Your task to perform on an android device: When is my next meeting? Image 0: 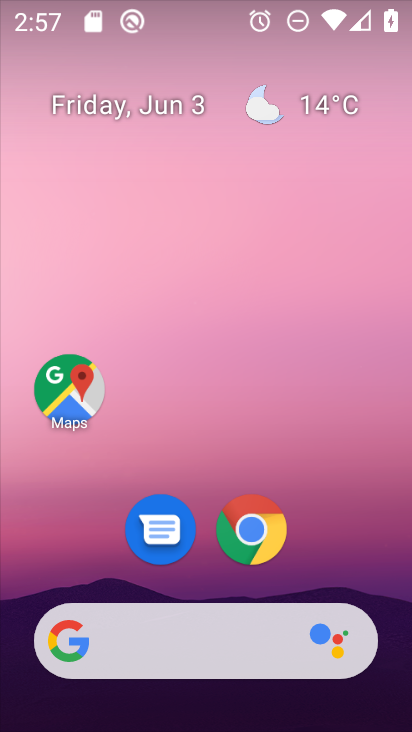
Step 0: drag from (374, 570) to (353, 206)
Your task to perform on an android device: When is my next meeting? Image 1: 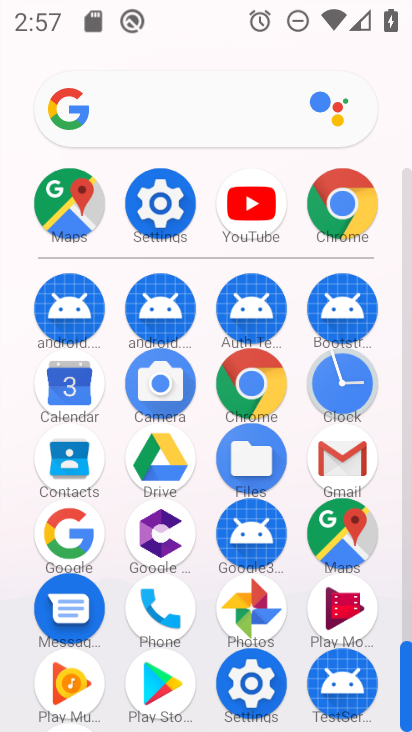
Step 1: click (77, 395)
Your task to perform on an android device: When is my next meeting? Image 2: 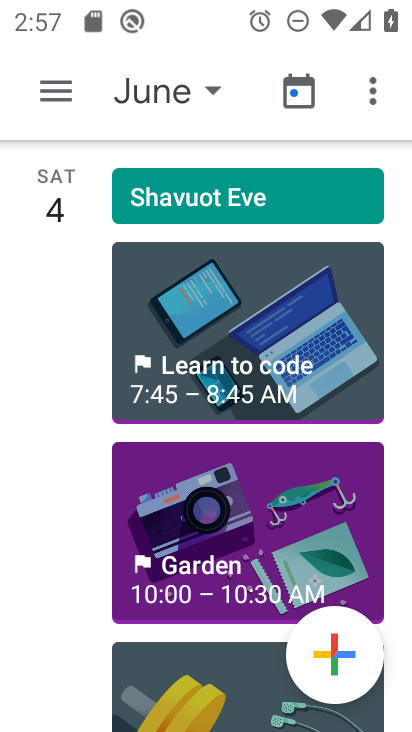
Step 2: click (244, 556)
Your task to perform on an android device: When is my next meeting? Image 3: 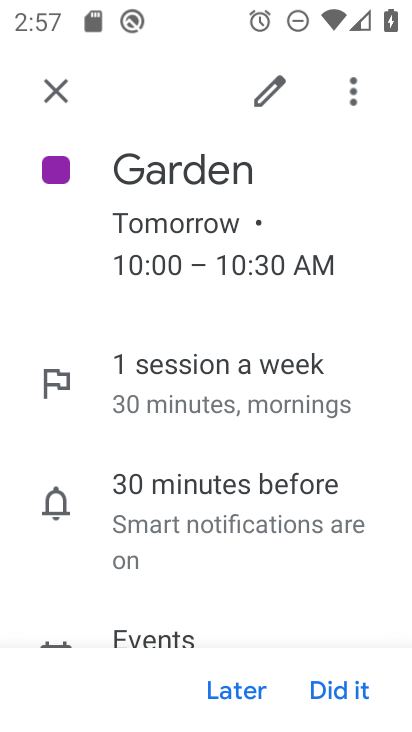
Step 3: task complete